Your task to perform on an android device: turn off airplane mode Image 0: 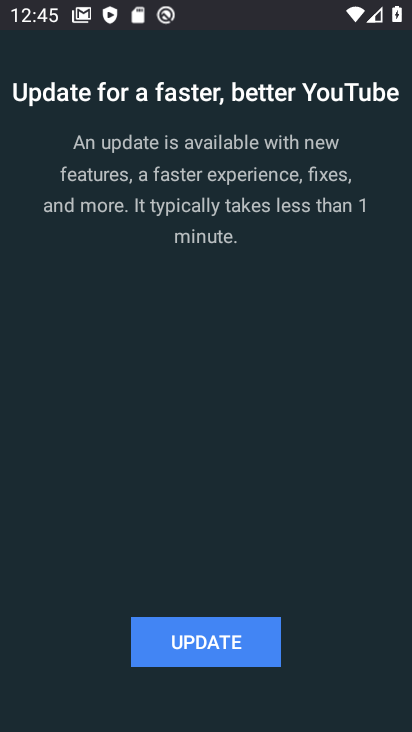
Step 0: press home button
Your task to perform on an android device: turn off airplane mode Image 1: 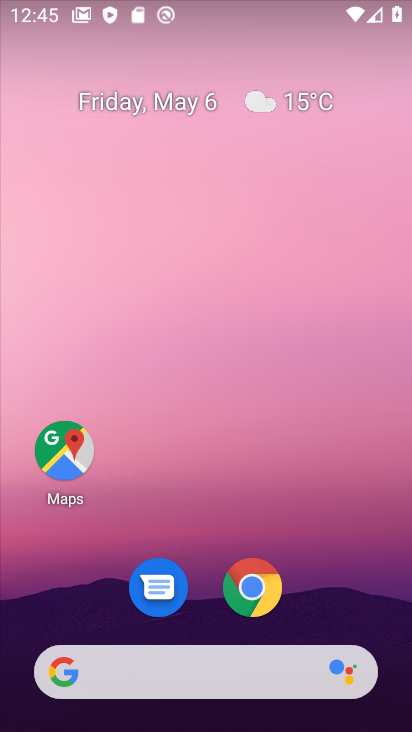
Step 1: drag from (318, 290) to (322, 184)
Your task to perform on an android device: turn off airplane mode Image 2: 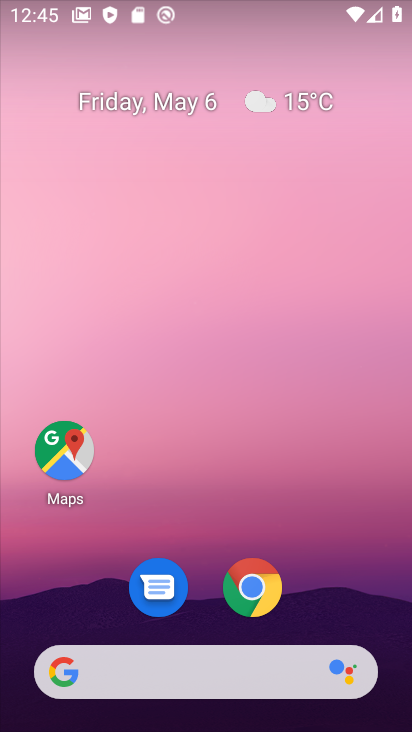
Step 2: drag from (282, 363) to (285, 203)
Your task to perform on an android device: turn off airplane mode Image 3: 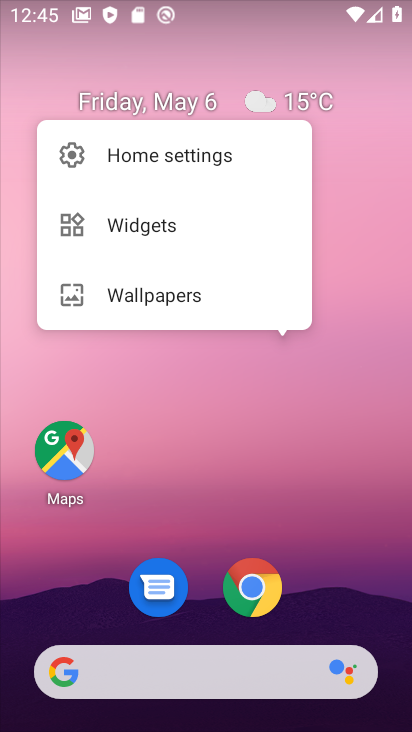
Step 3: drag from (288, 500) to (328, 165)
Your task to perform on an android device: turn off airplane mode Image 4: 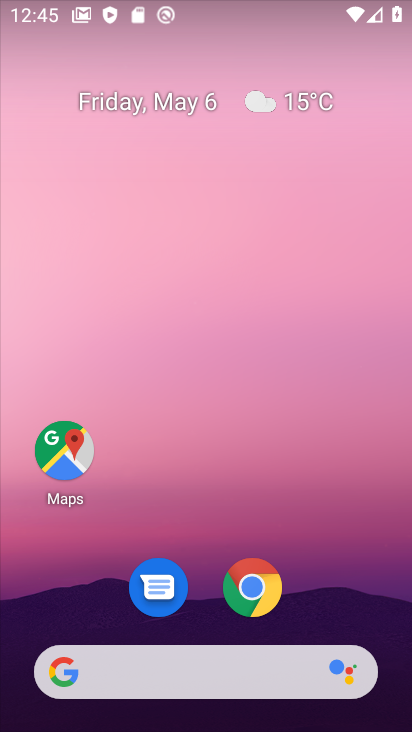
Step 4: click (260, 170)
Your task to perform on an android device: turn off airplane mode Image 5: 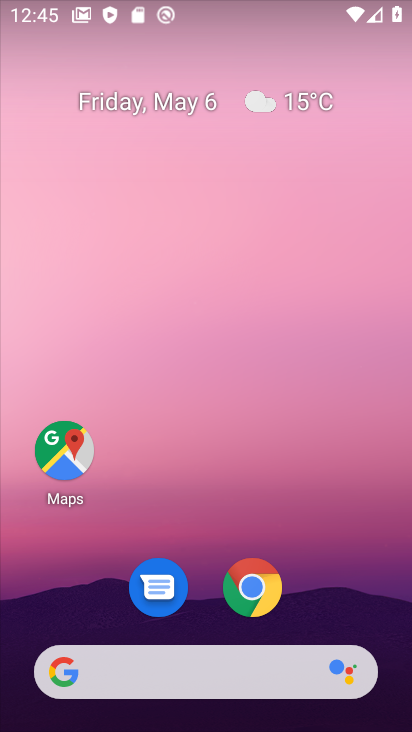
Step 5: drag from (275, 209) to (265, 69)
Your task to perform on an android device: turn off airplane mode Image 6: 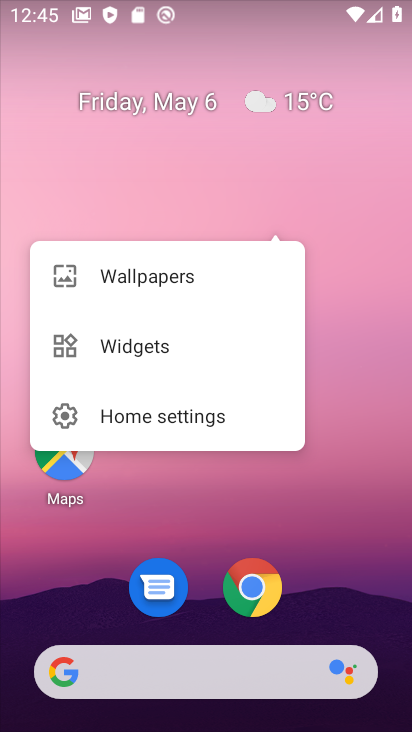
Step 6: drag from (320, 552) to (359, 164)
Your task to perform on an android device: turn off airplane mode Image 7: 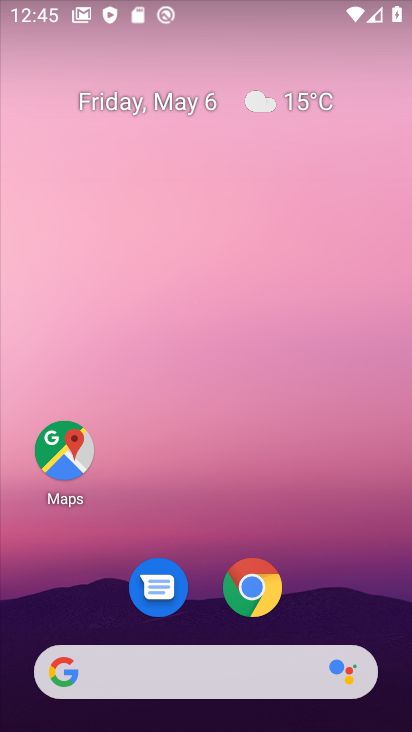
Step 7: drag from (326, 597) to (314, 107)
Your task to perform on an android device: turn off airplane mode Image 8: 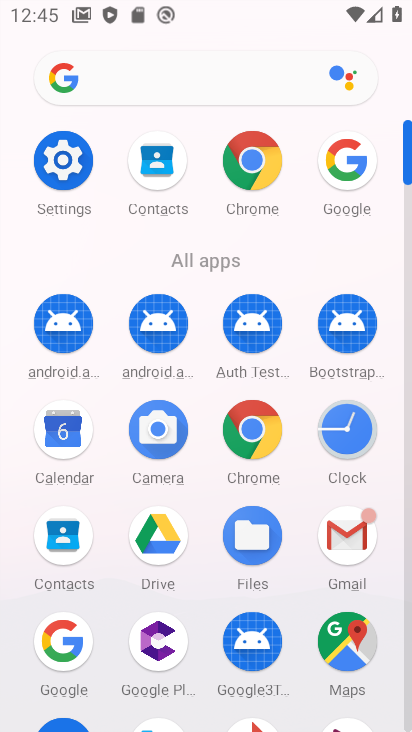
Step 8: click (60, 181)
Your task to perform on an android device: turn off airplane mode Image 9: 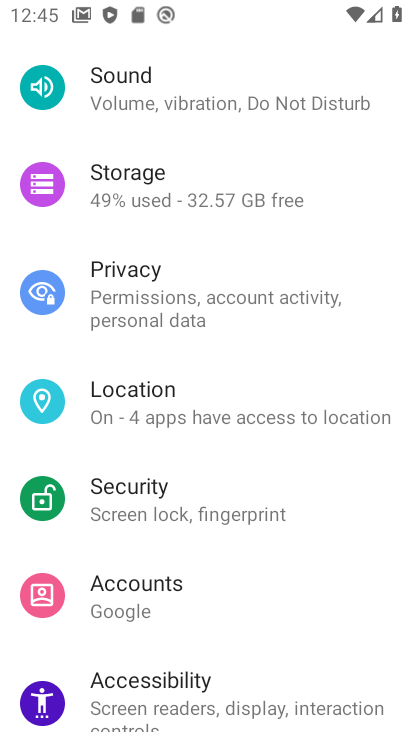
Step 9: drag from (226, 161) to (281, 562)
Your task to perform on an android device: turn off airplane mode Image 10: 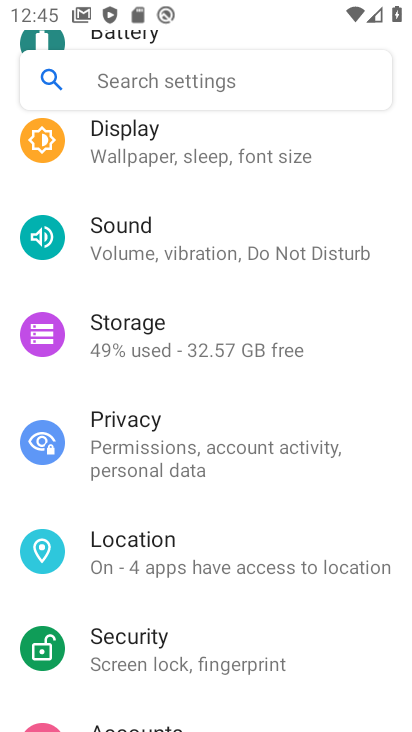
Step 10: drag from (227, 209) to (206, 506)
Your task to perform on an android device: turn off airplane mode Image 11: 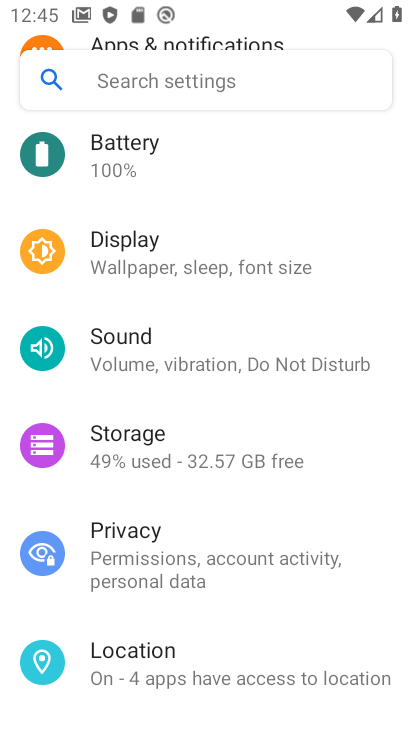
Step 11: drag from (241, 217) to (230, 623)
Your task to perform on an android device: turn off airplane mode Image 12: 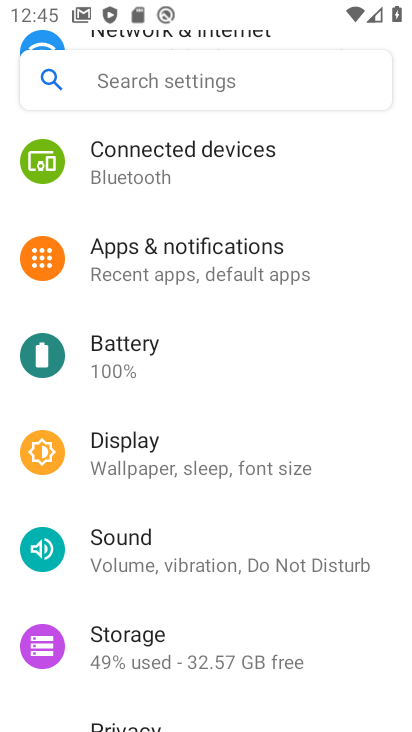
Step 12: drag from (236, 215) to (207, 611)
Your task to perform on an android device: turn off airplane mode Image 13: 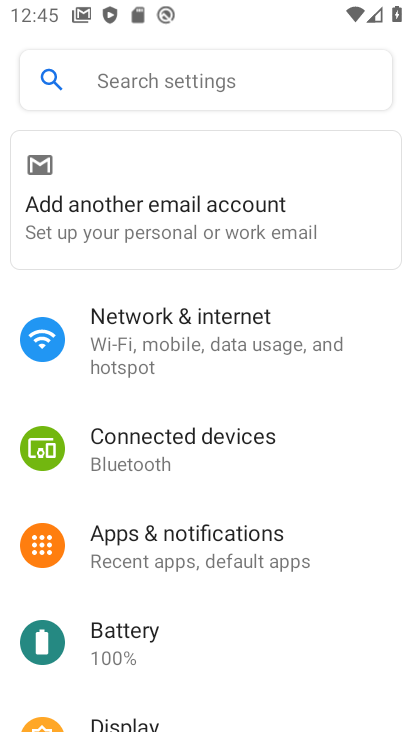
Step 13: click (159, 340)
Your task to perform on an android device: turn off airplane mode Image 14: 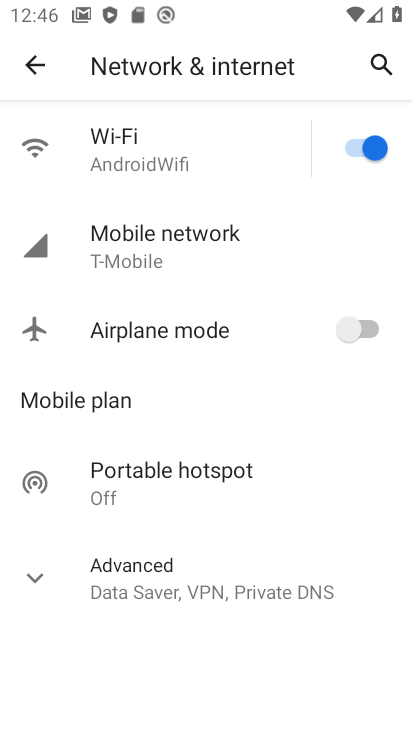
Step 14: task complete